Your task to perform on an android device: Go to eBay Image 0: 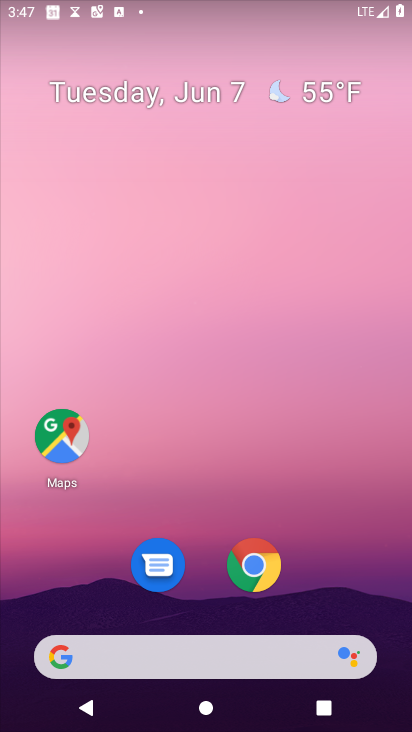
Step 0: drag from (214, 637) to (317, 138)
Your task to perform on an android device: Go to eBay Image 1: 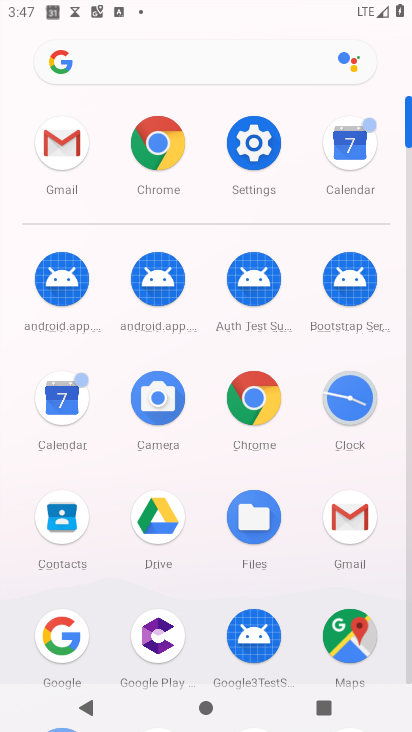
Step 1: click (244, 413)
Your task to perform on an android device: Go to eBay Image 2: 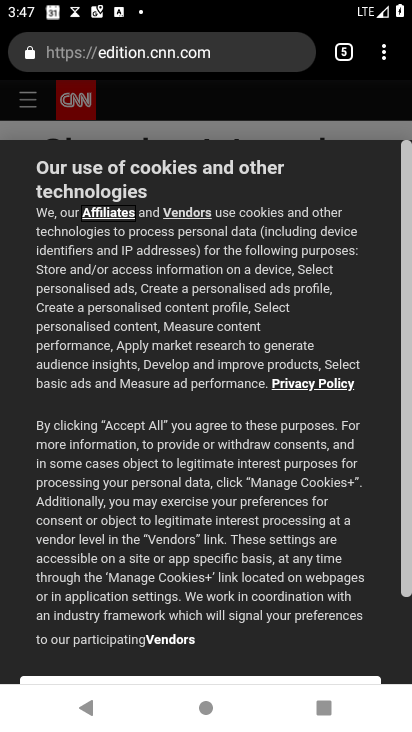
Step 2: click (192, 61)
Your task to perform on an android device: Go to eBay Image 3: 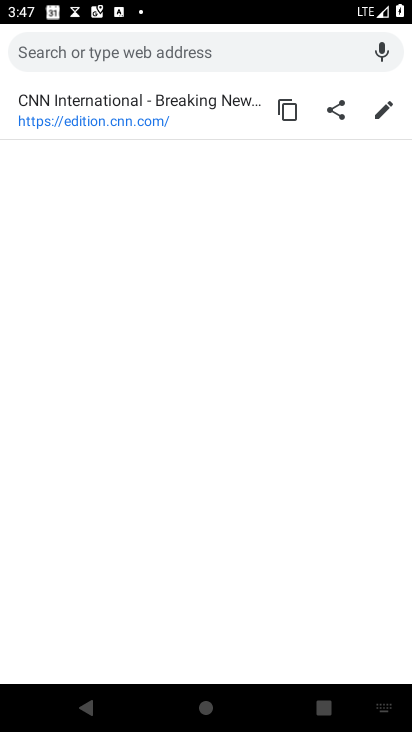
Step 3: type "eay"
Your task to perform on an android device: Go to eBay Image 4: 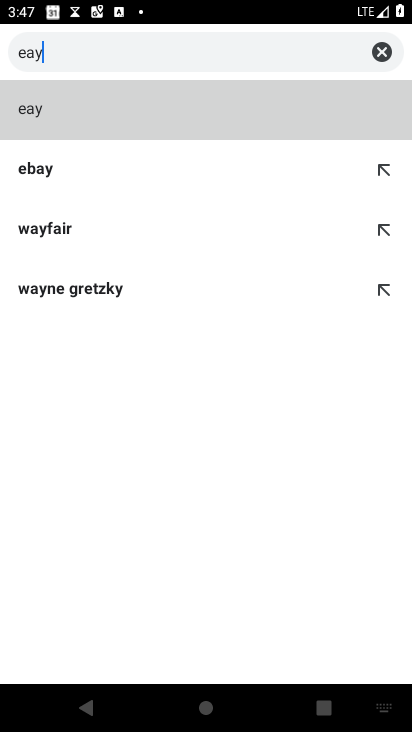
Step 4: click (51, 170)
Your task to perform on an android device: Go to eBay Image 5: 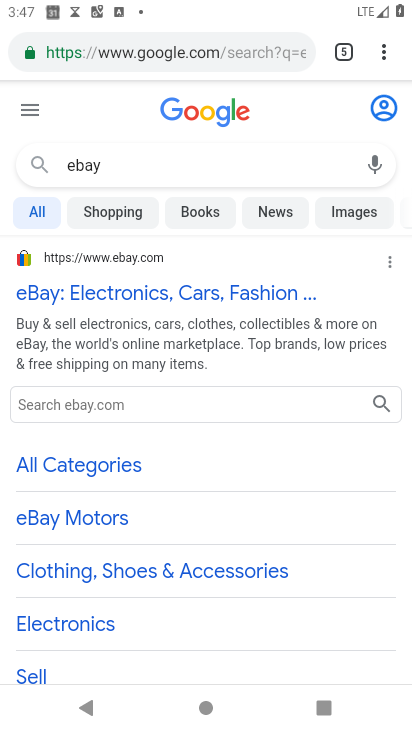
Step 5: task complete